Your task to perform on an android device: Open Reddit.com Image 0: 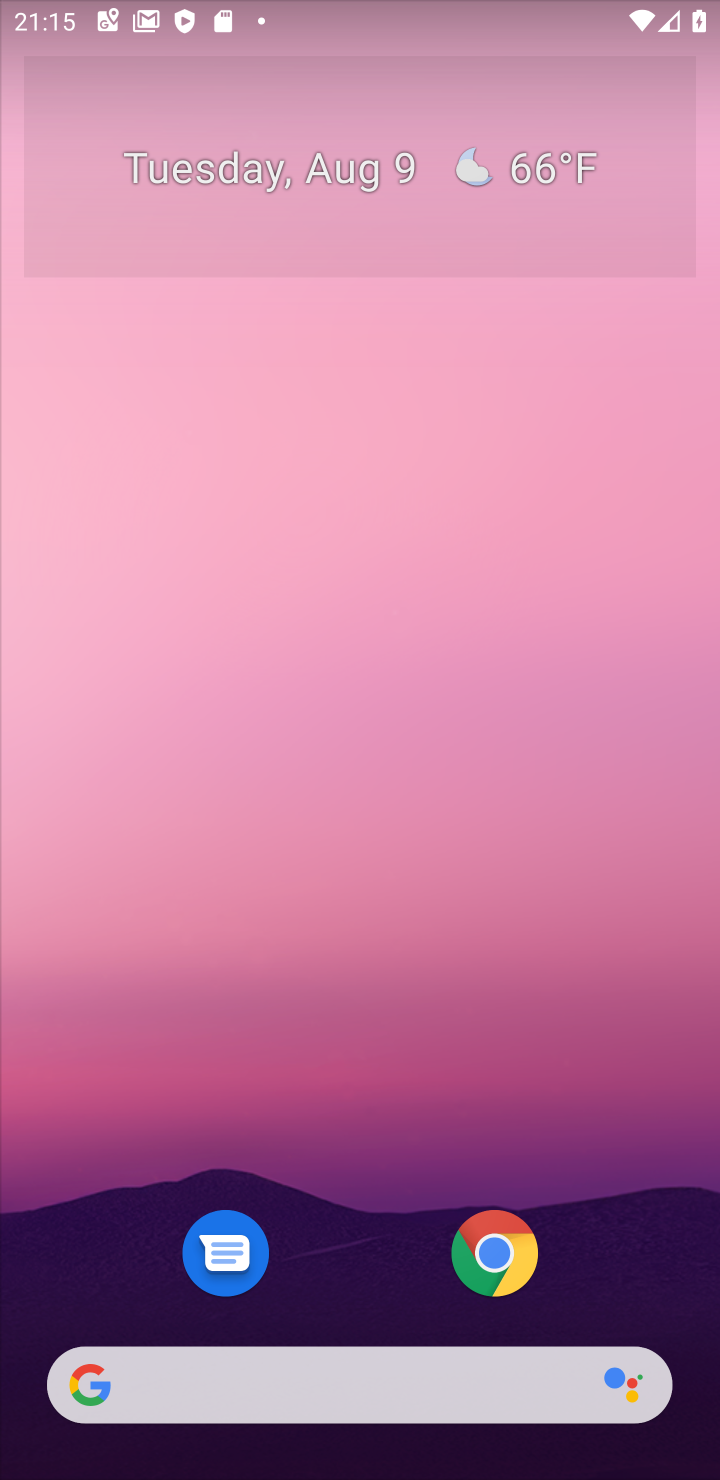
Step 0: drag from (345, 1095) to (269, 16)
Your task to perform on an android device: Open Reddit.com Image 1: 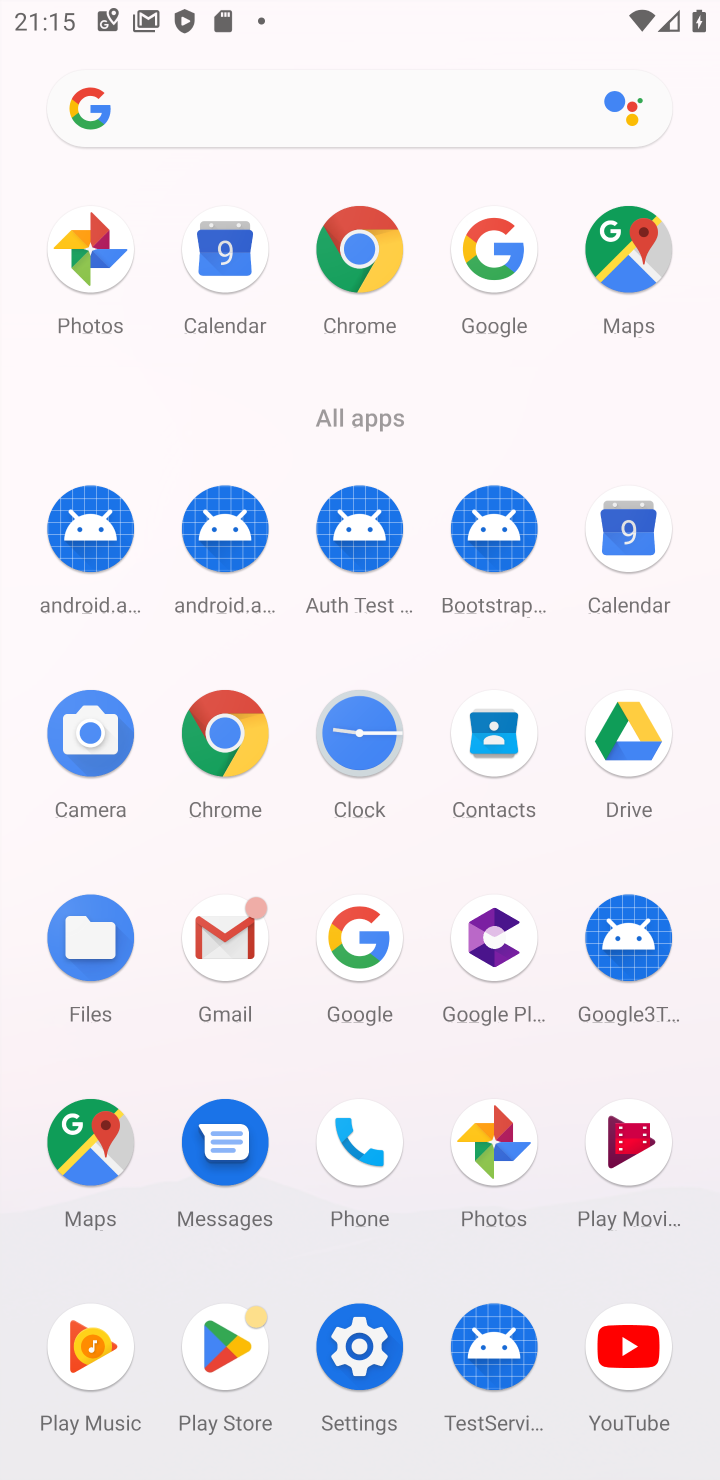
Step 1: click (231, 739)
Your task to perform on an android device: Open Reddit.com Image 2: 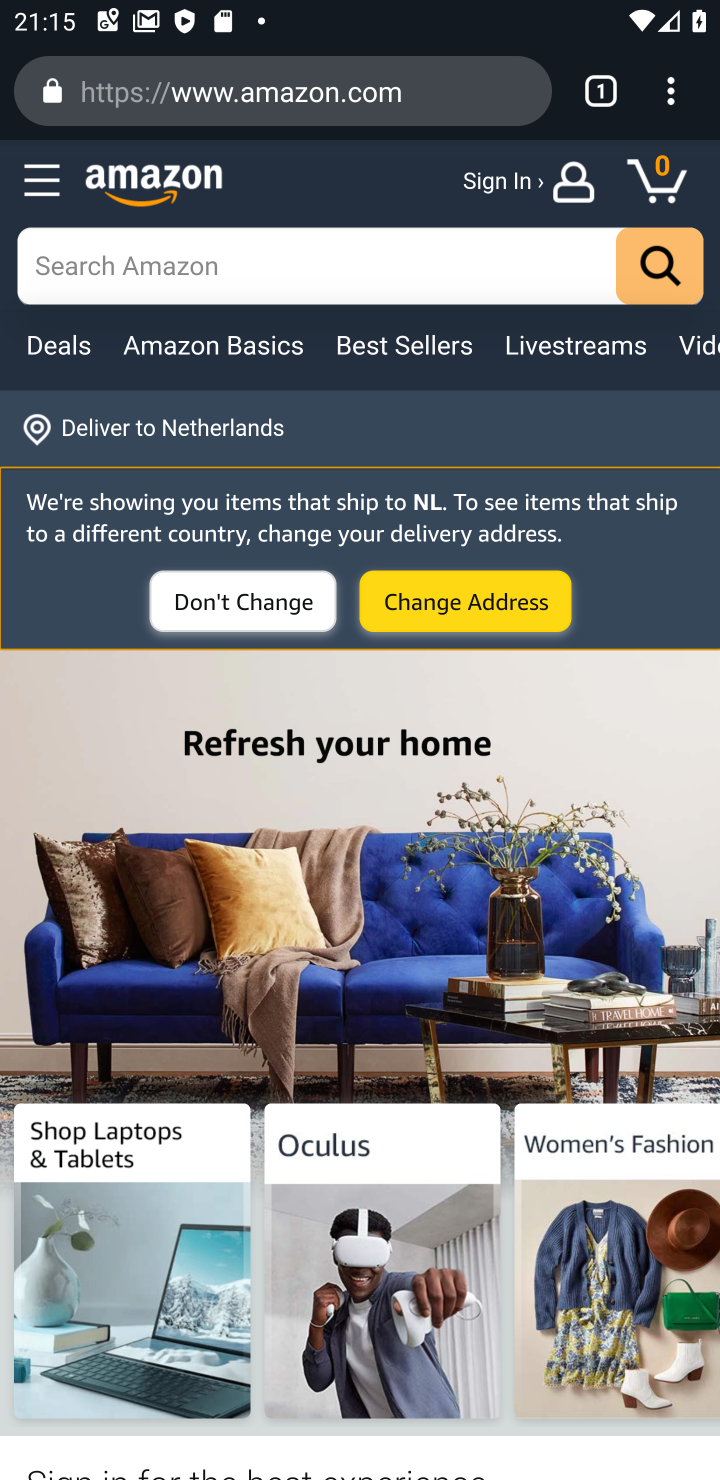
Step 2: click (347, 82)
Your task to perform on an android device: Open Reddit.com Image 3: 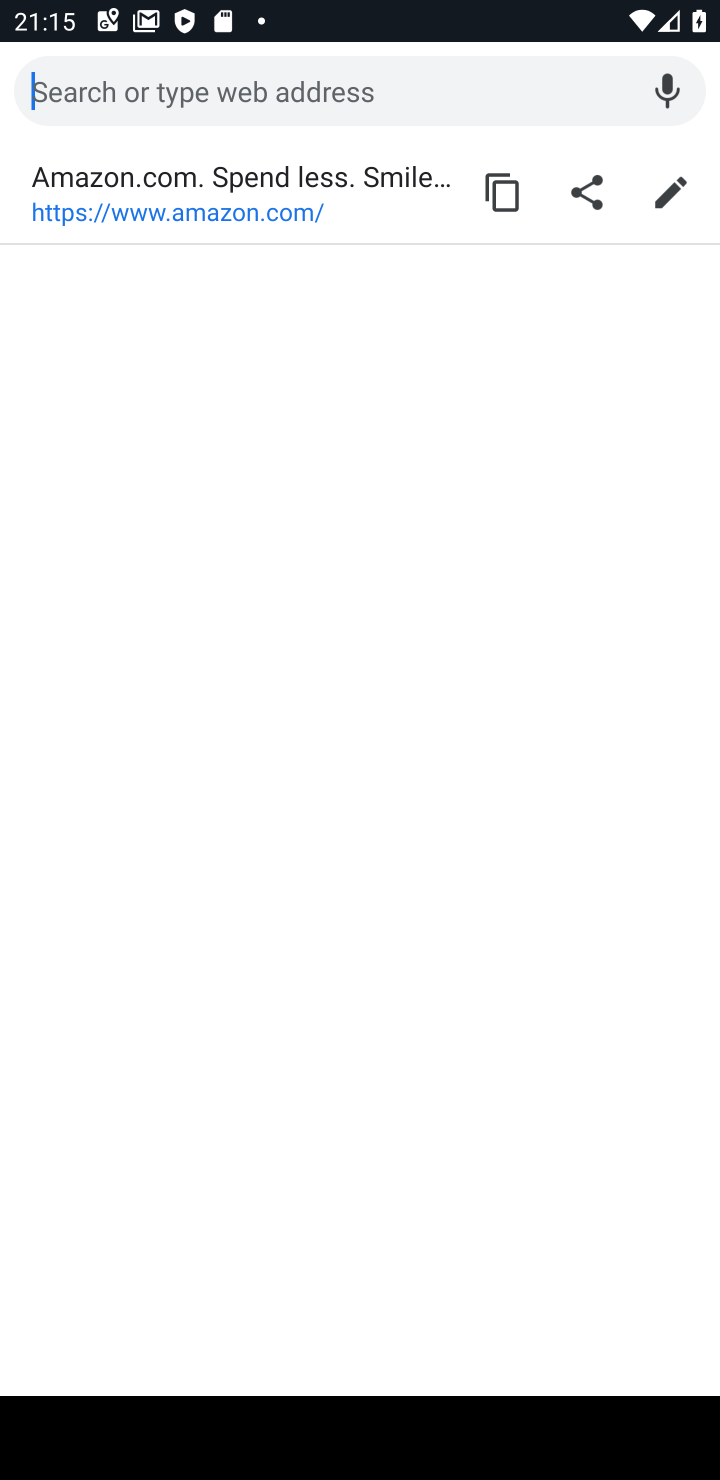
Step 3: type "reddit.com"
Your task to perform on an android device: Open Reddit.com Image 4: 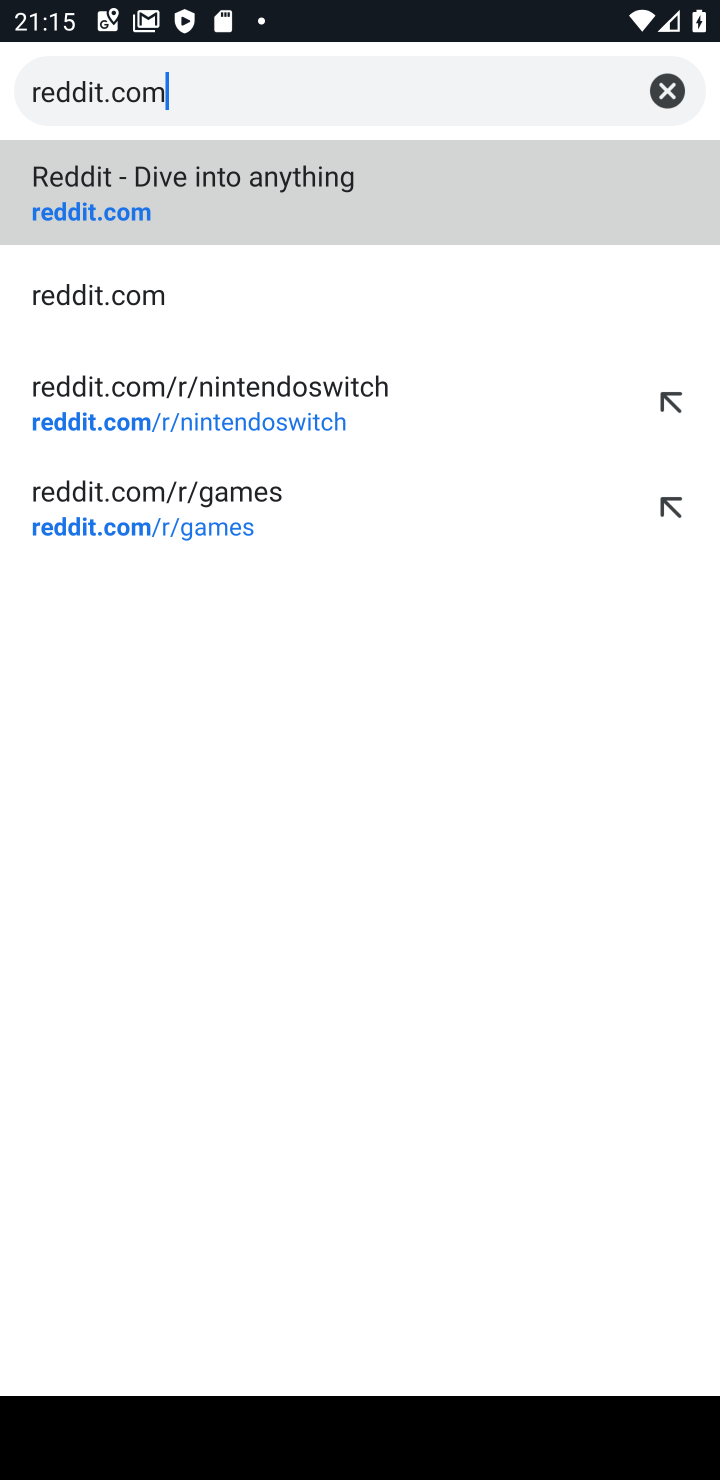
Step 4: click (144, 192)
Your task to perform on an android device: Open Reddit.com Image 5: 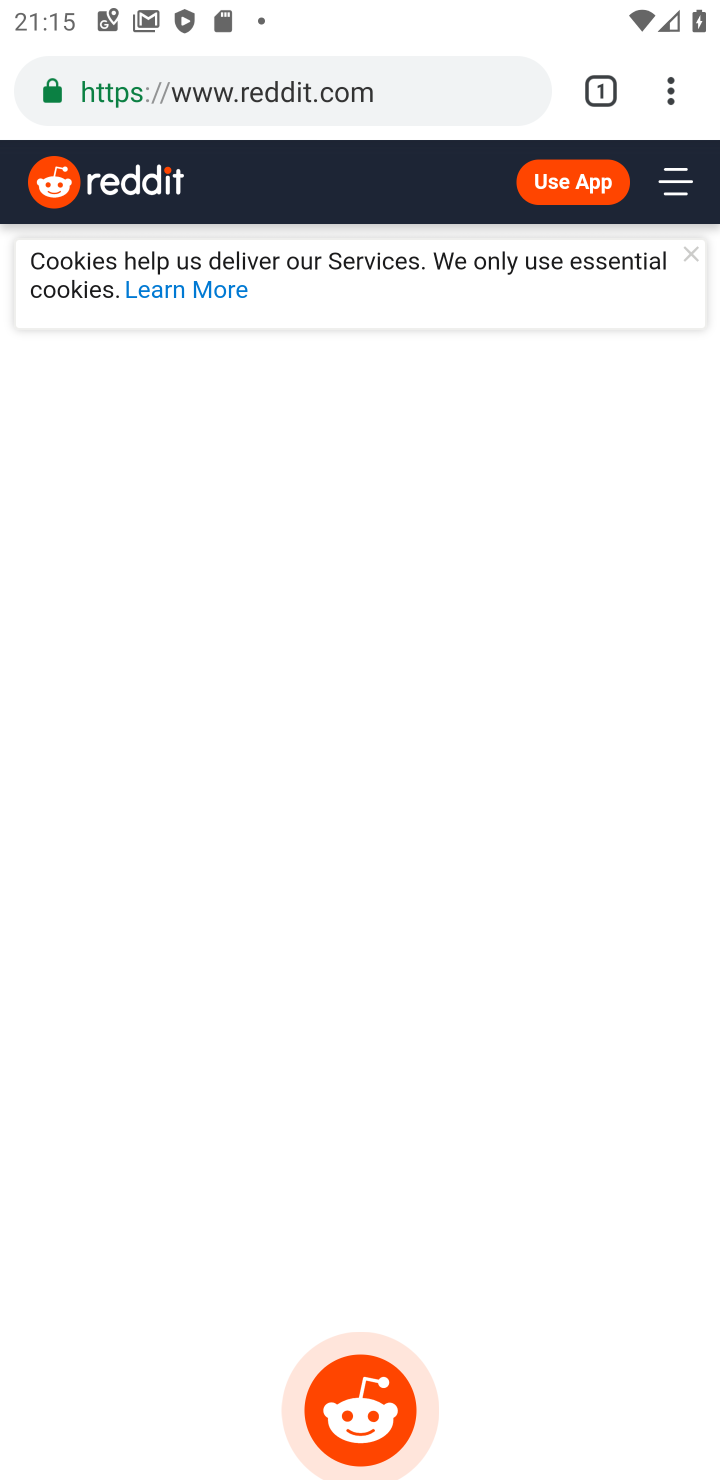
Step 5: task complete